Your task to perform on an android device: star an email in the gmail app Image 0: 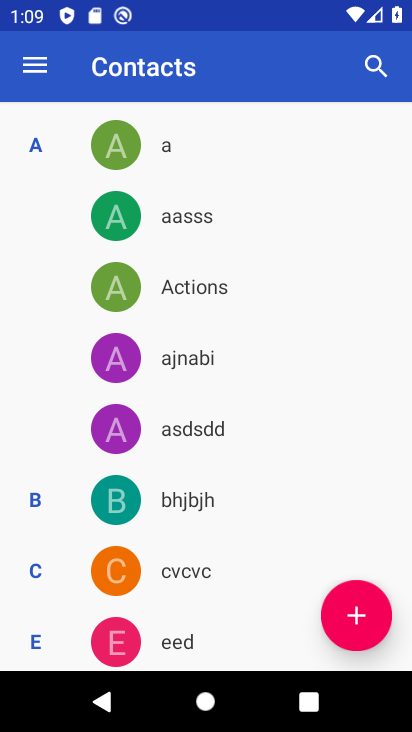
Step 0: press home button
Your task to perform on an android device: star an email in the gmail app Image 1: 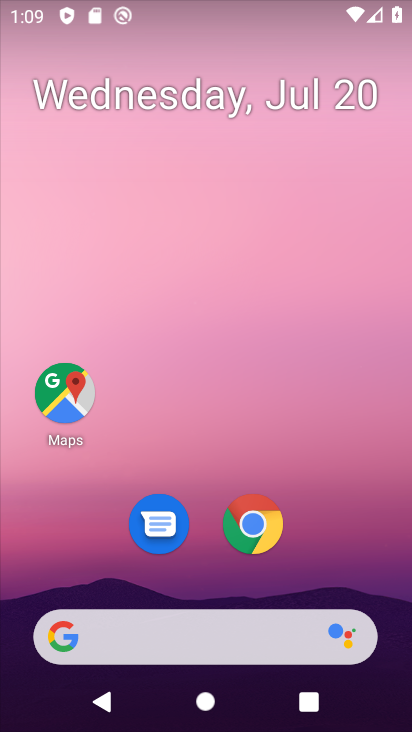
Step 1: drag from (308, 541) to (281, 32)
Your task to perform on an android device: star an email in the gmail app Image 2: 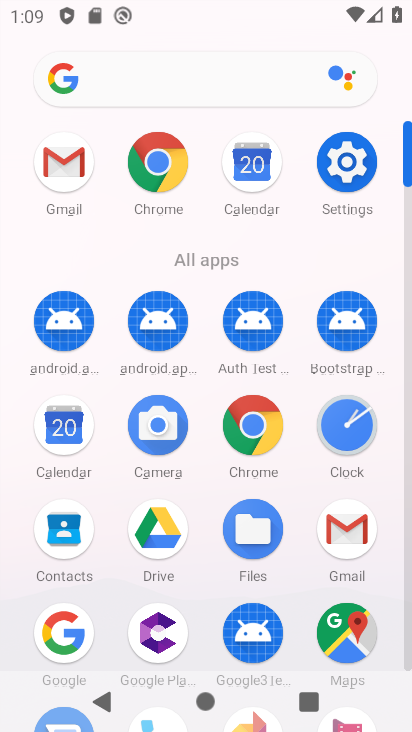
Step 2: click (58, 164)
Your task to perform on an android device: star an email in the gmail app Image 3: 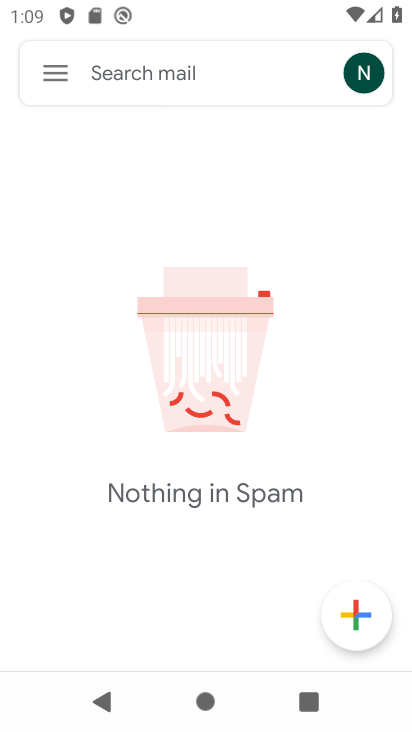
Step 3: click (53, 73)
Your task to perform on an android device: star an email in the gmail app Image 4: 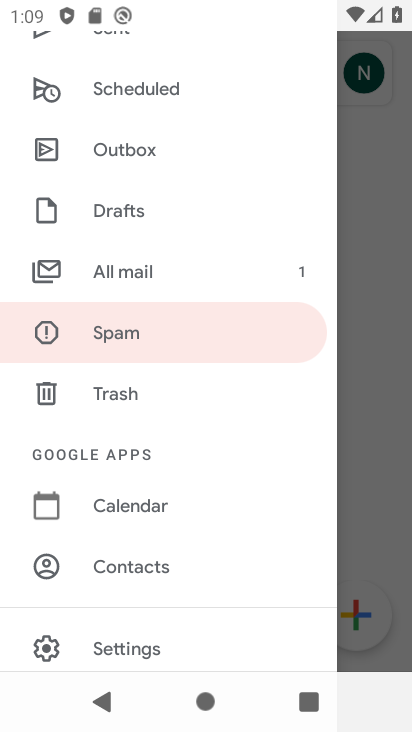
Step 4: click (131, 272)
Your task to perform on an android device: star an email in the gmail app Image 5: 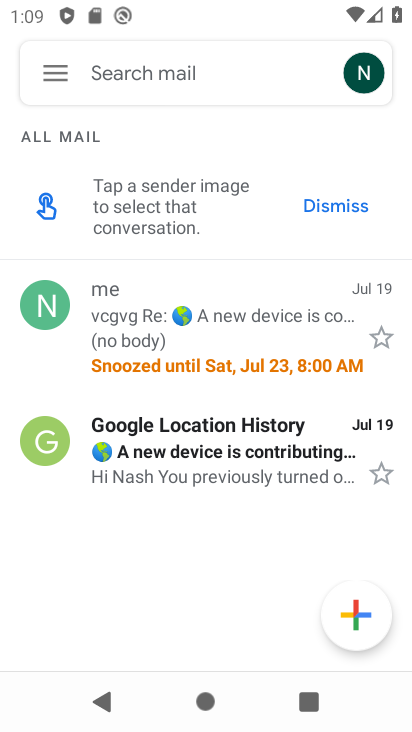
Step 5: click (384, 338)
Your task to perform on an android device: star an email in the gmail app Image 6: 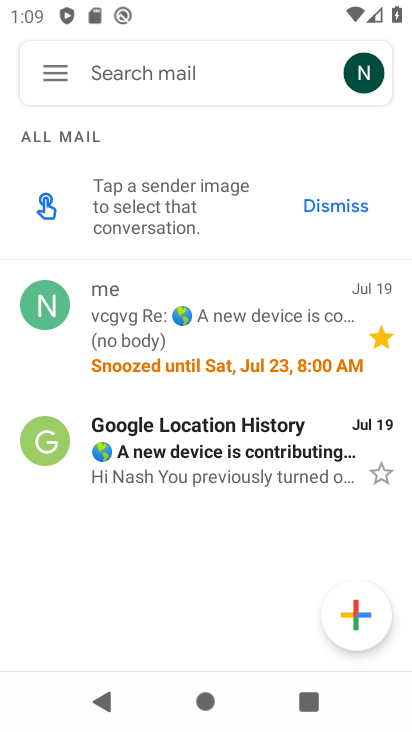
Step 6: task complete